Your task to perform on an android device: open sync settings in chrome Image 0: 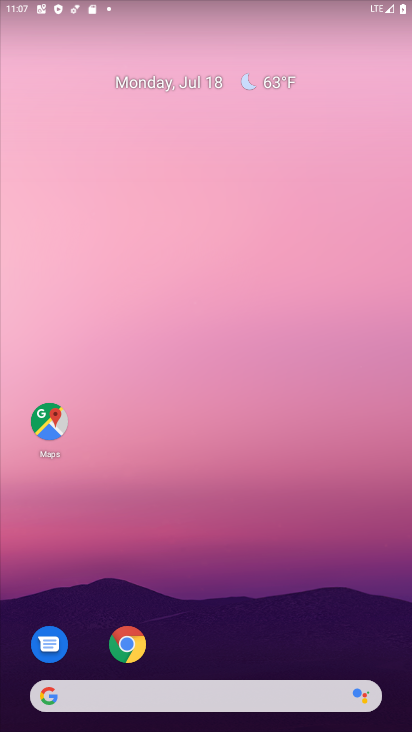
Step 0: click (120, 637)
Your task to perform on an android device: open sync settings in chrome Image 1: 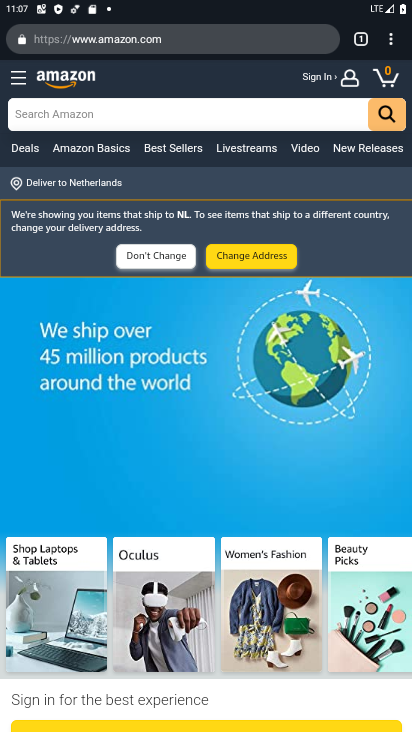
Step 1: click (390, 36)
Your task to perform on an android device: open sync settings in chrome Image 2: 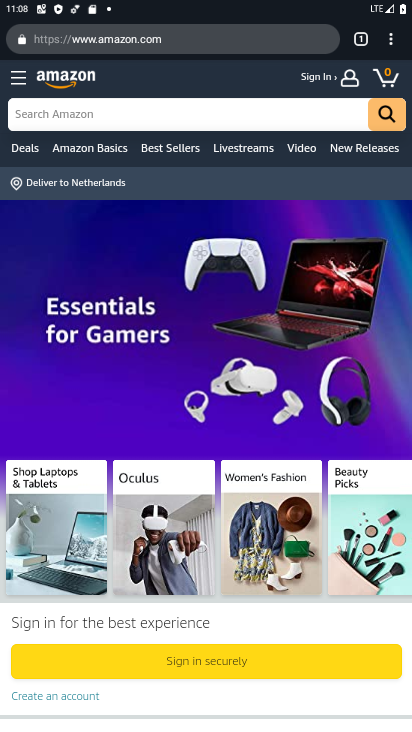
Step 2: click (389, 44)
Your task to perform on an android device: open sync settings in chrome Image 3: 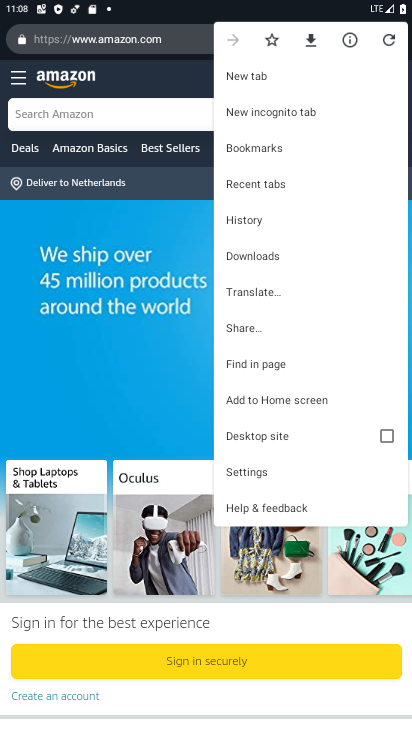
Step 3: click (246, 477)
Your task to perform on an android device: open sync settings in chrome Image 4: 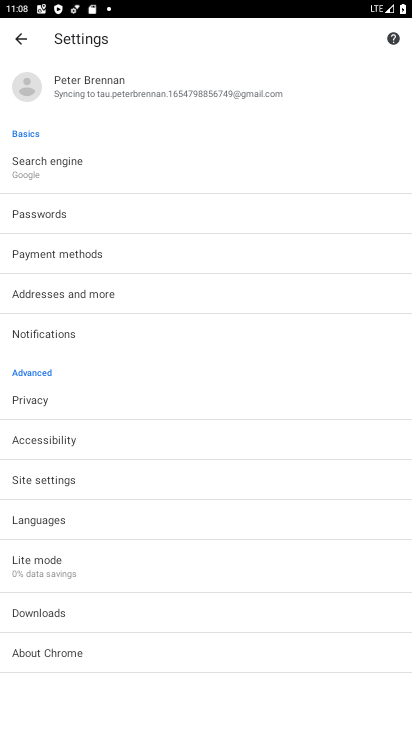
Step 4: click (118, 87)
Your task to perform on an android device: open sync settings in chrome Image 5: 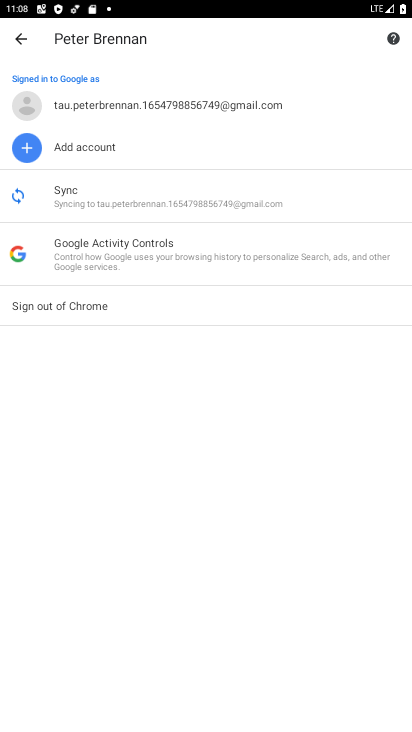
Step 5: click (77, 211)
Your task to perform on an android device: open sync settings in chrome Image 6: 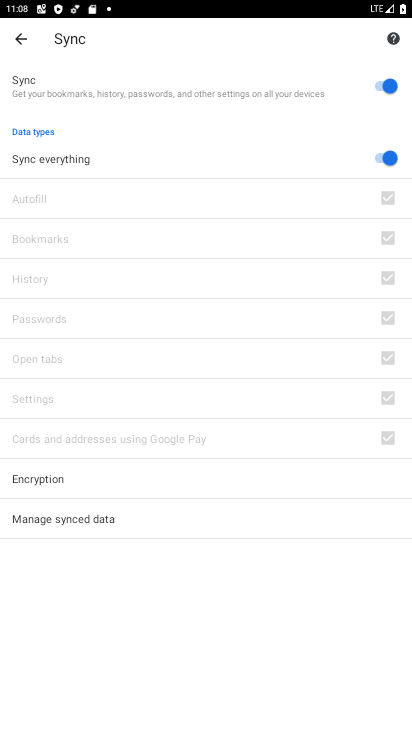
Step 6: task complete